Your task to perform on an android device: Show me productivity apps on the Play Store Image 0: 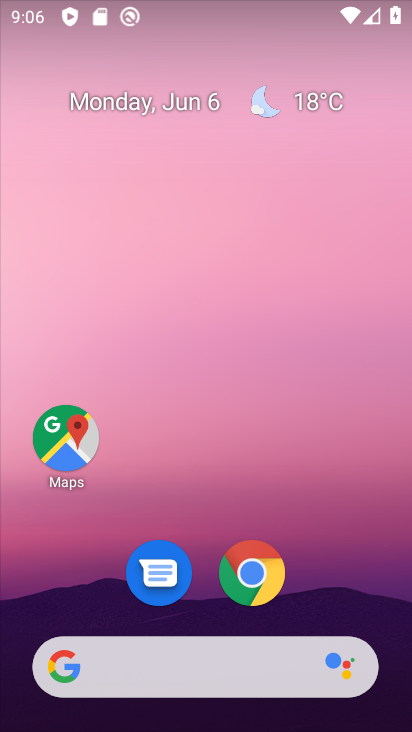
Step 0: drag from (189, 596) to (245, 7)
Your task to perform on an android device: Show me productivity apps on the Play Store Image 1: 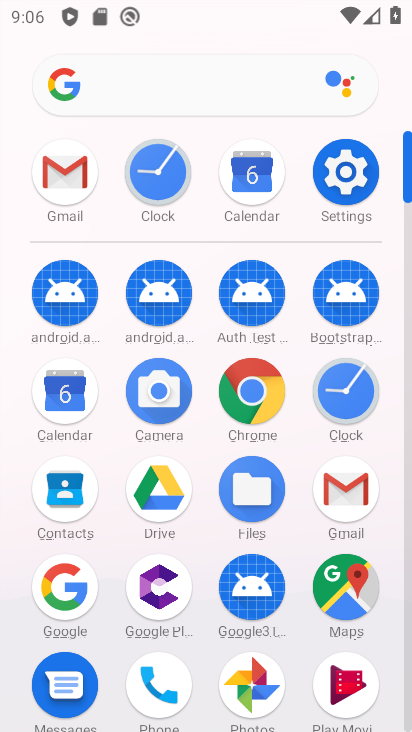
Step 1: drag from (209, 589) to (266, 168)
Your task to perform on an android device: Show me productivity apps on the Play Store Image 2: 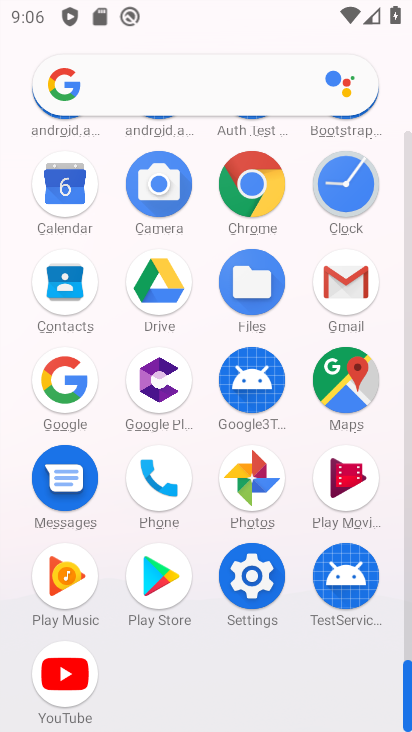
Step 2: click (155, 599)
Your task to perform on an android device: Show me productivity apps on the Play Store Image 3: 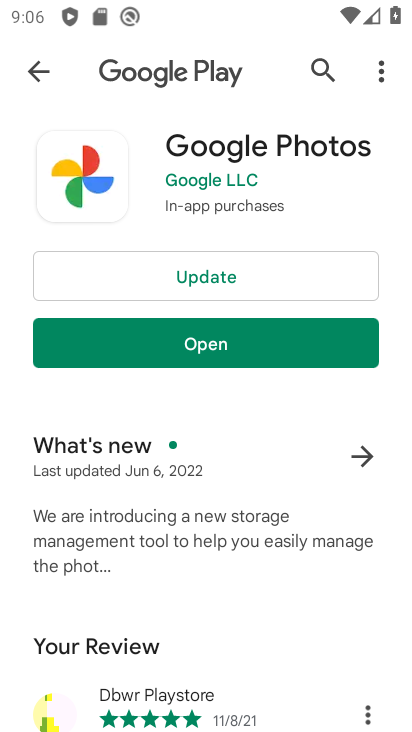
Step 3: click (34, 53)
Your task to perform on an android device: Show me productivity apps on the Play Store Image 4: 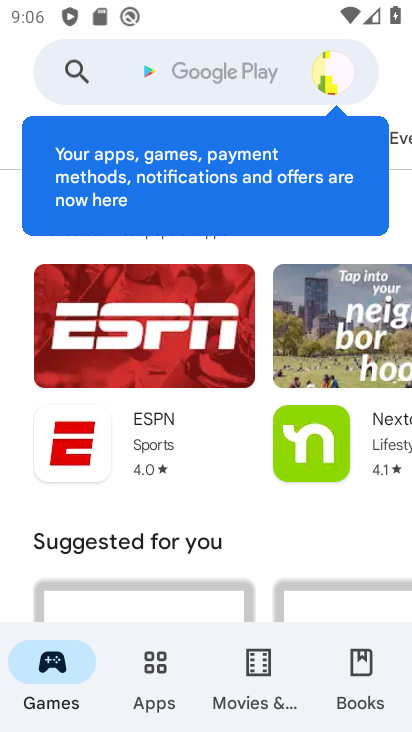
Step 4: click (161, 685)
Your task to perform on an android device: Show me productivity apps on the Play Store Image 5: 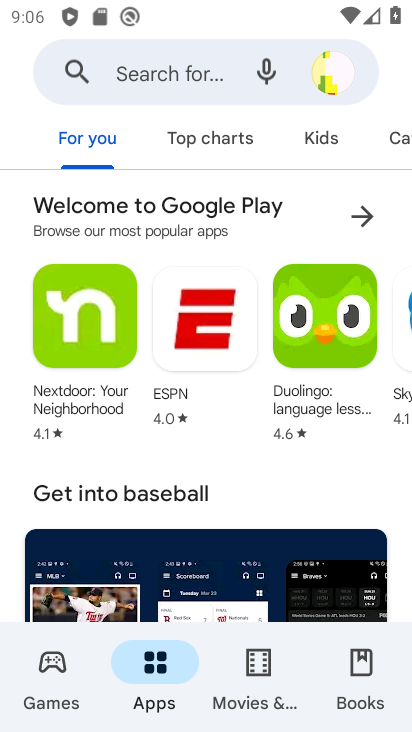
Step 5: drag from (206, 526) to (287, 119)
Your task to perform on an android device: Show me productivity apps on the Play Store Image 6: 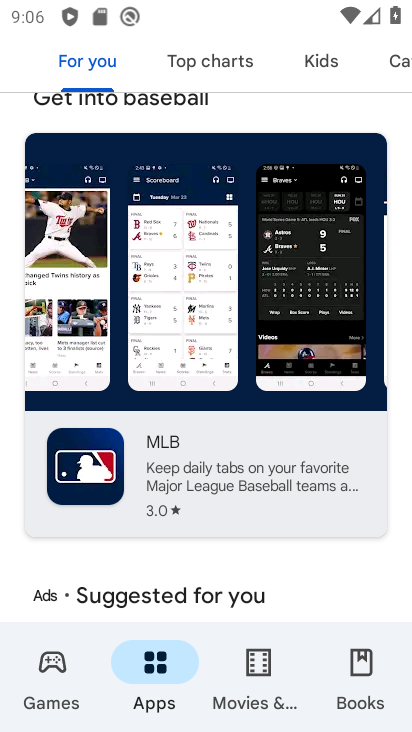
Step 6: drag from (252, 570) to (323, 130)
Your task to perform on an android device: Show me productivity apps on the Play Store Image 7: 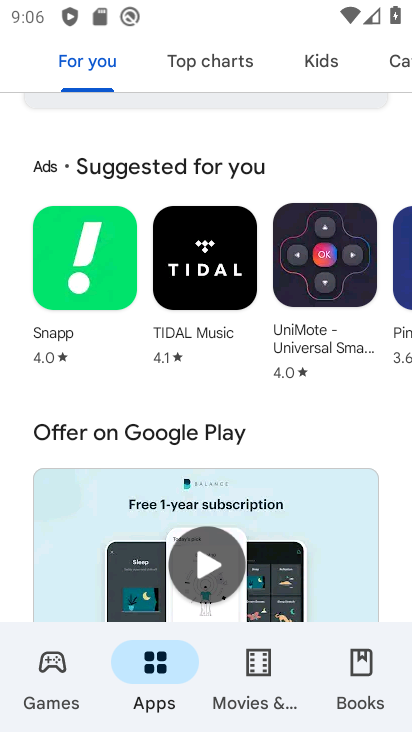
Step 7: drag from (245, 561) to (310, 110)
Your task to perform on an android device: Show me productivity apps on the Play Store Image 8: 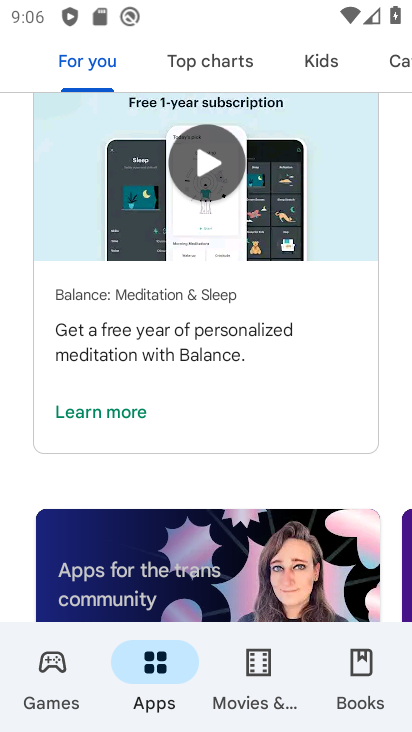
Step 8: drag from (253, 475) to (312, 62)
Your task to perform on an android device: Show me productivity apps on the Play Store Image 9: 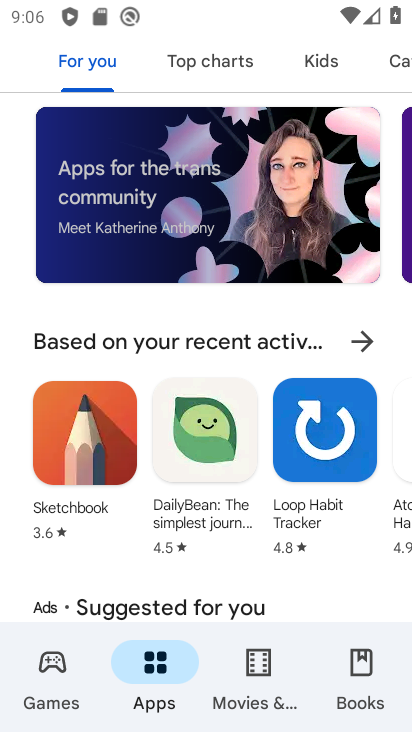
Step 9: drag from (226, 558) to (281, 113)
Your task to perform on an android device: Show me productivity apps on the Play Store Image 10: 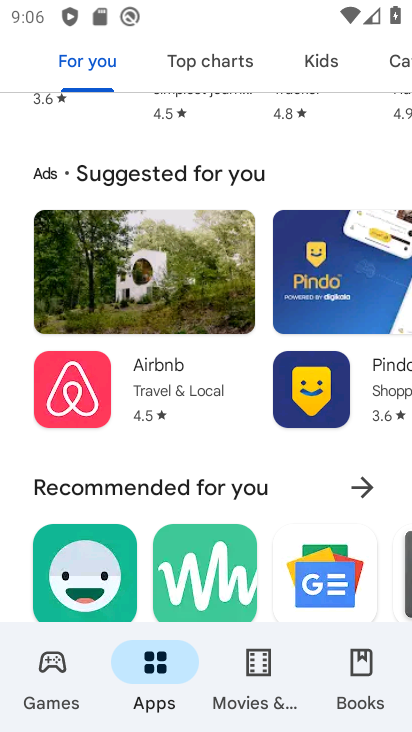
Step 10: drag from (143, 543) to (261, 105)
Your task to perform on an android device: Show me productivity apps on the Play Store Image 11: 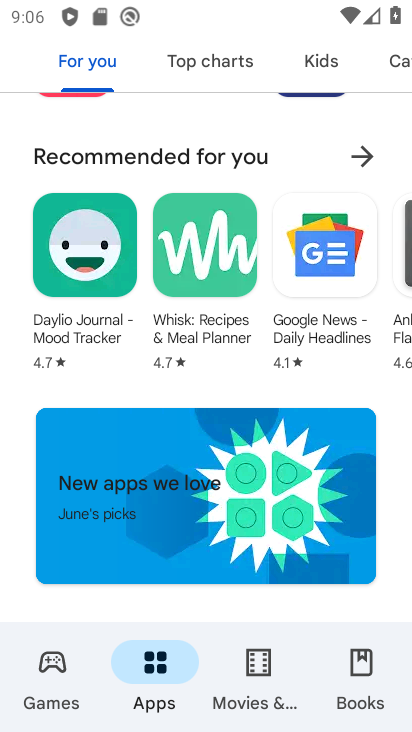
Step 11: drag from (213, 583) to (283, 73)
Your task to perform on an android device: Show me productivity apps on the Play Store Image 12: 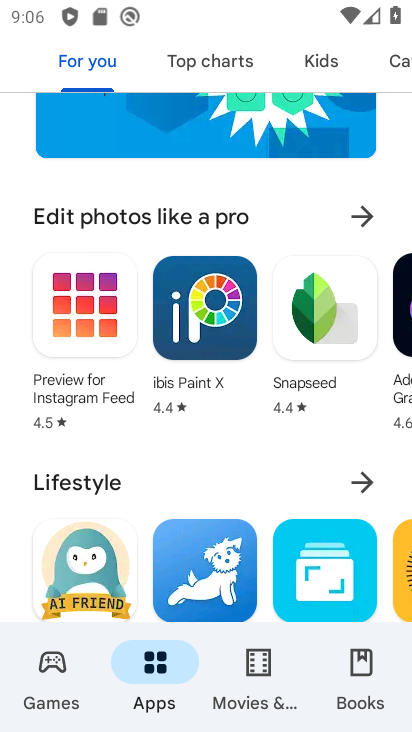
Step 12: drag from (224, 562) to (324, 16)
Your task to perform on an android device: Show me productivity apps on the Play Store Image 13: 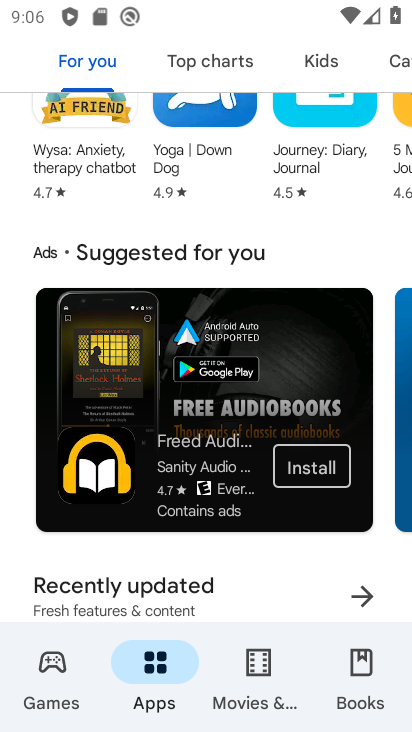
Step 13: drag from (219, 516) to (285, 93)
Your task to perform on an android device: Show me productivity apps on the Play Store Image 14: 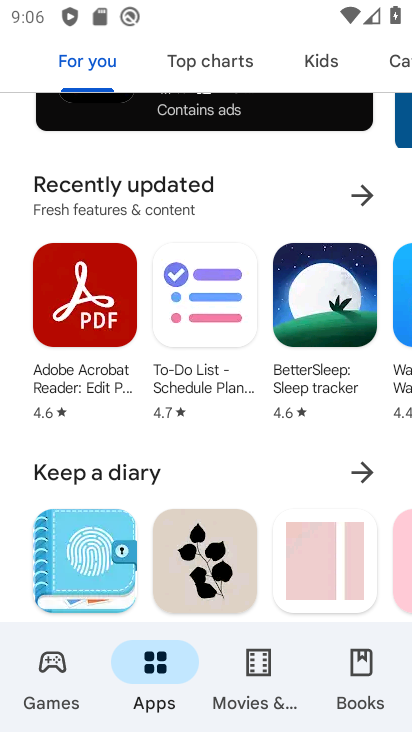
Step 14: drag from (190, 544) to (270, 38)
Your task to perform on an android device: Show me productivity apps on the Play Store Image 15: 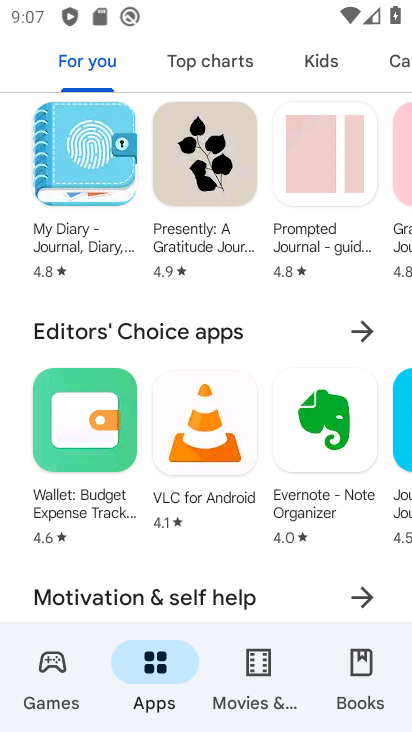
Step 15: drag from (206, 554) to (284, 15)
Your task to perform on an android device: Show me productivity apps on the Play Store Image 16: 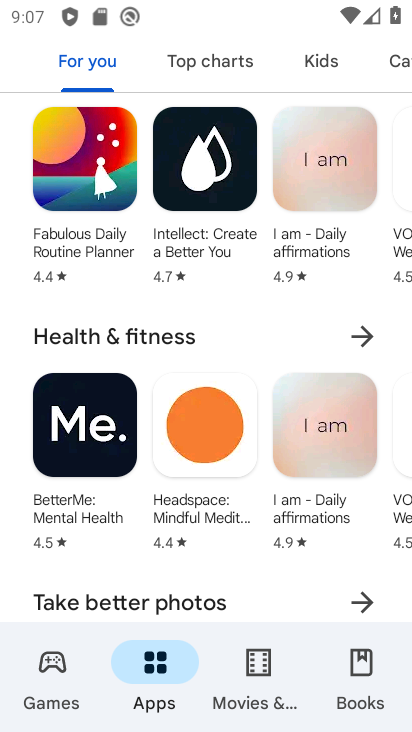
Step 16: drag from (260, 585) to (316, 95)
Your task to perform on an android device: Show me productivity apps on the Play Store Image 17: 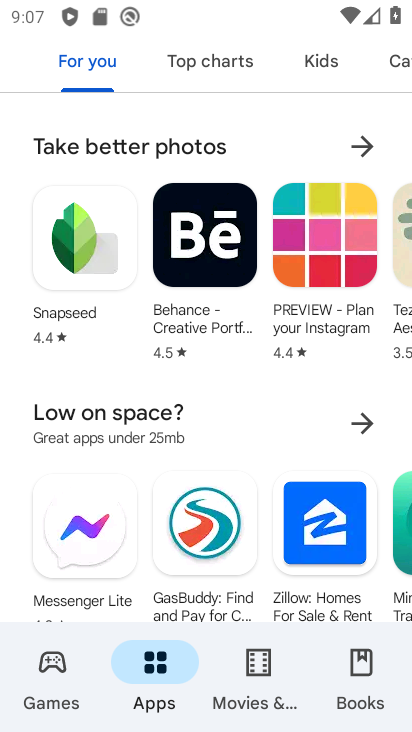
Step 17: drag from (216, 522) to (291, 24)
Your task to perform on an android device: Show me productivity apps on the Play Store Image 18: 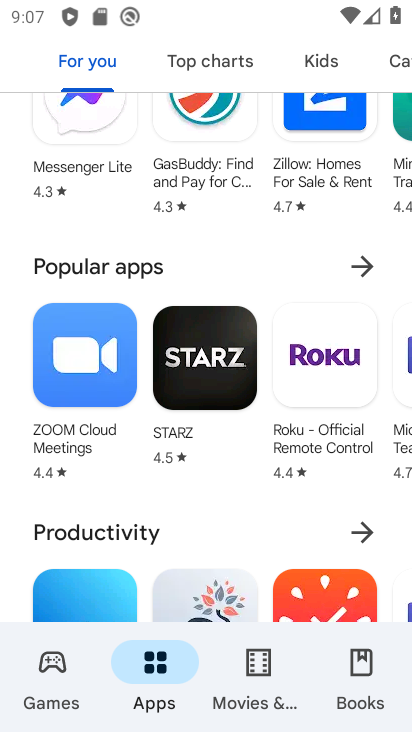
Step 18: click (362, 531)
Your task to perform on an android device: Show me productivity apps on the Play Store Image 19: 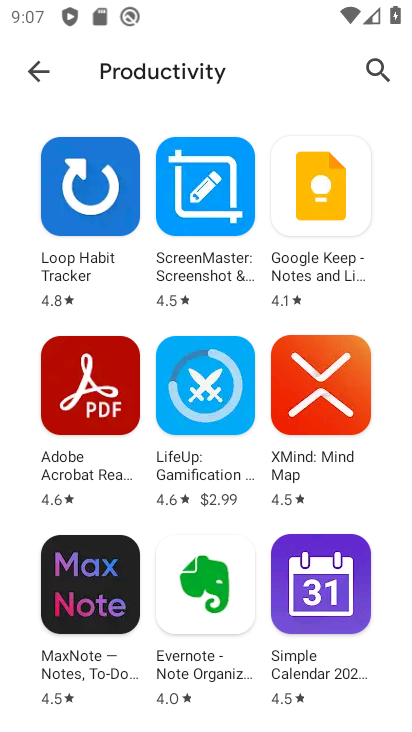
Step 19: task complete